Your task to perform on an android device: open the mobile data screen to see how much data has been used Image 0: 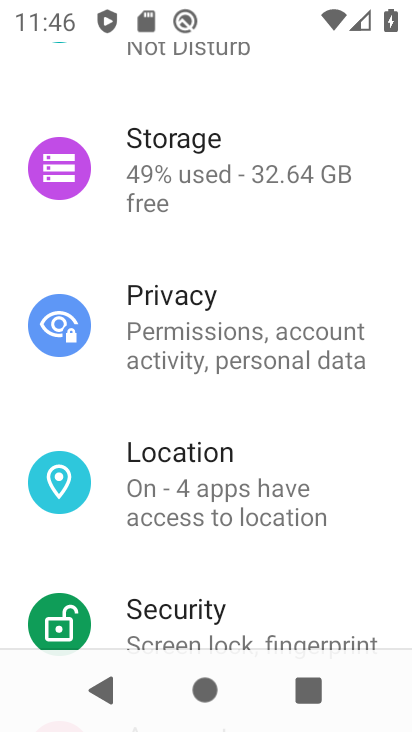
Step 0: drag from (283, 556) to (232, 729)
Your task to perform on an android device: open the mobile data screen to see how much data has been used Image 1: 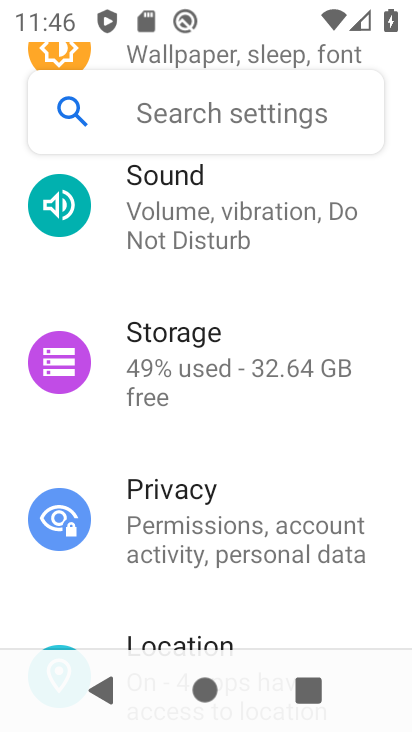
Step 1: drag from (176, 216) to (252, 698)
Your task to perform on an android device: open the mobile data screen to see how much data has been used Image 2: 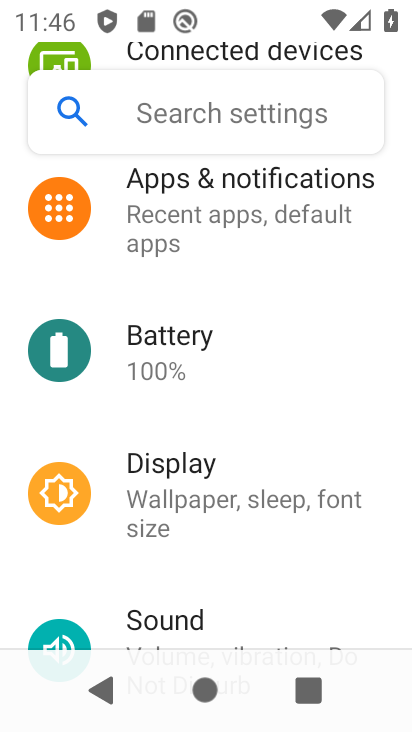
Step 2: drag from (206, 289) to (229, 729)
Your task to perform on an android device: open the mobile data screen to see how much data has been used Image 3: 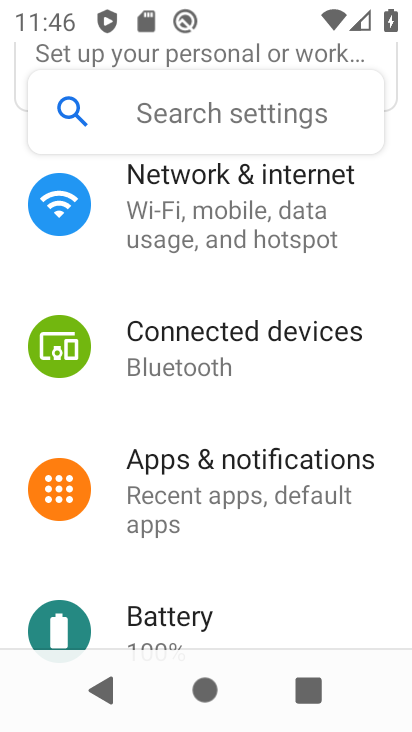
Step 3: drag from (191, 248) to (240, 688)
Your task to perform on an android device: open the mobile data screen to see how much data has been used Image 4: 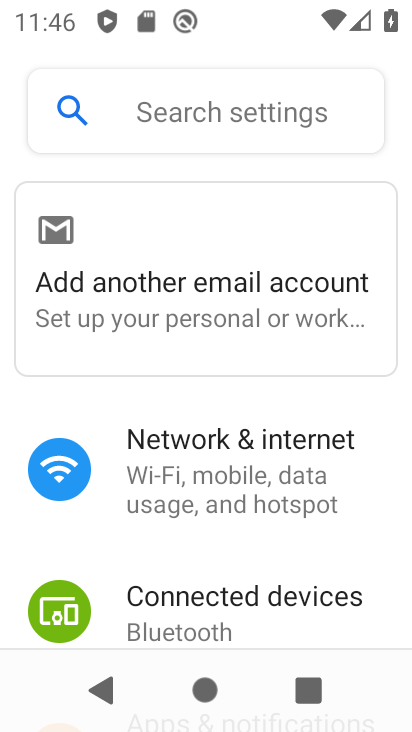
Step 4: click (201, 441)
Your task to perform on an android device: open the mobile data screen to see how much data has been used Image 5: 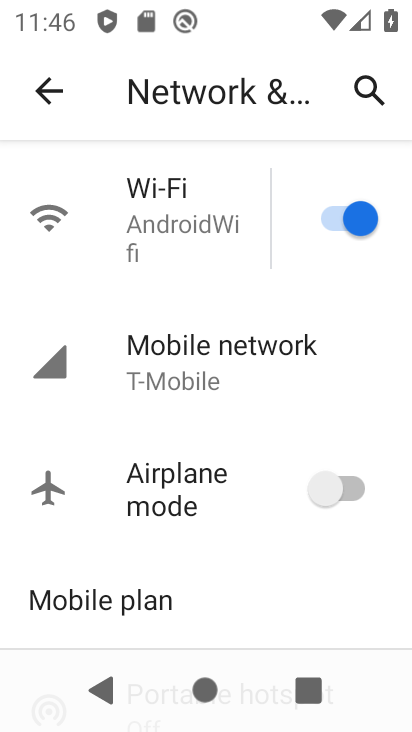
Step 5: drag from (213, 531) to (318, 159)
Your task to perform on an android device: open the mobile data screen to see how much data has been used Image 6: 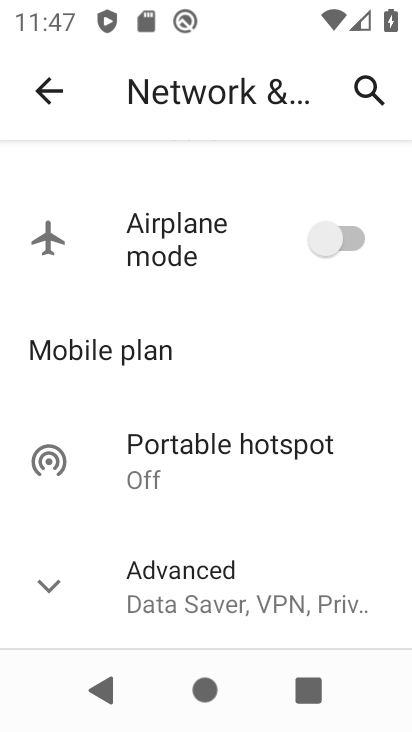
Step 6: drag from (230, 313) to (258, 618)
Your task to perform on an android device: open the mobile data screen to see how much data has been used Image 7: 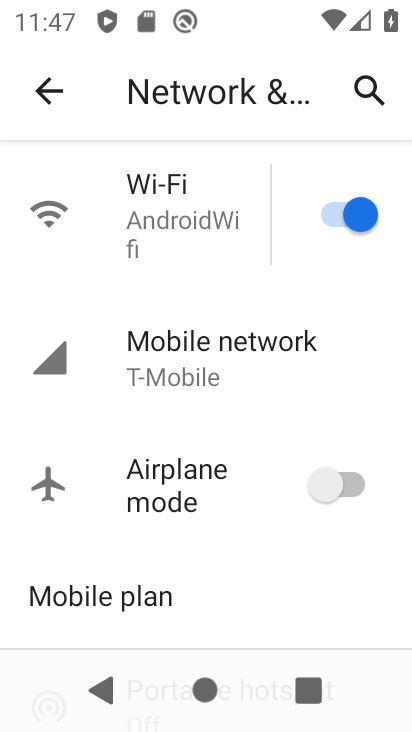
Step 7: click (245, 342)
Your task to perform on an android device: open the mobile data screen to see how much data has been used Image 8: 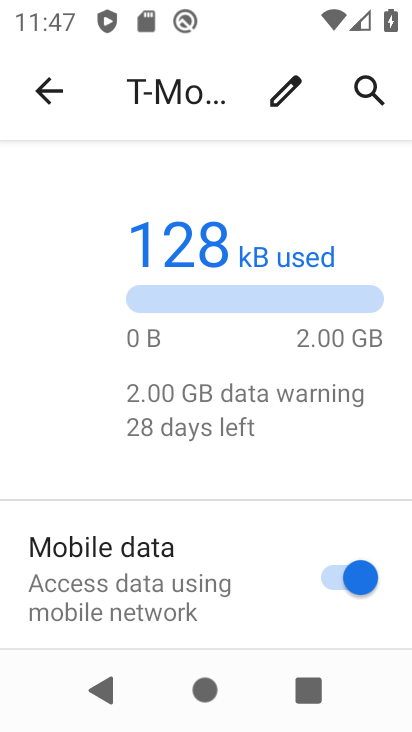
Step 8: task complete